Your task to perform on an android device: turn off picture-in-picture Image 0: 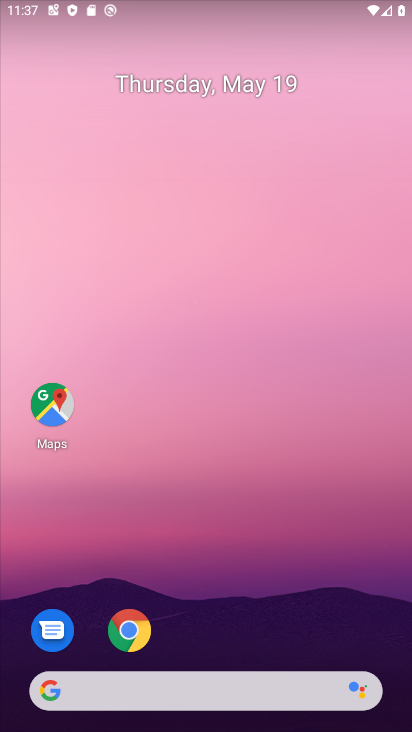
Step 0: click (130, 629)
Your task to perform on an android device: turn off picture-in-picture Image 1: 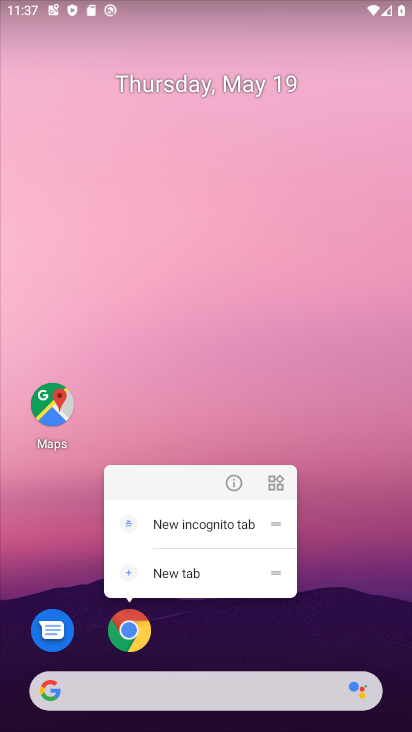
Step 1: click (232, 478)
Your task to perform on an android device: turn off picture-in-picture Image 2: 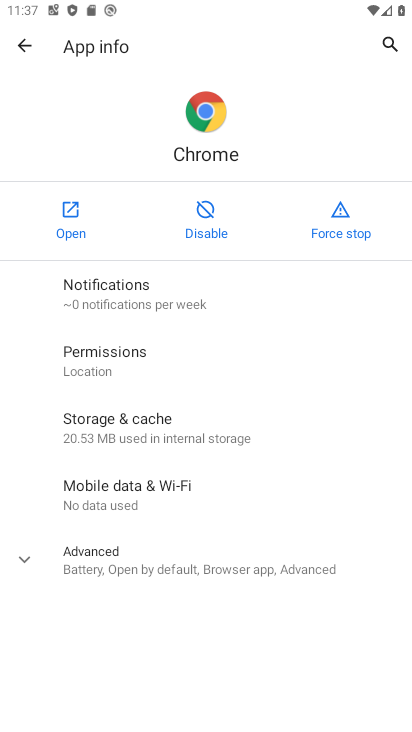
Step 2: click (152, 565)
Your task to perform on an android device: turn off picture-in-picture Image 3: 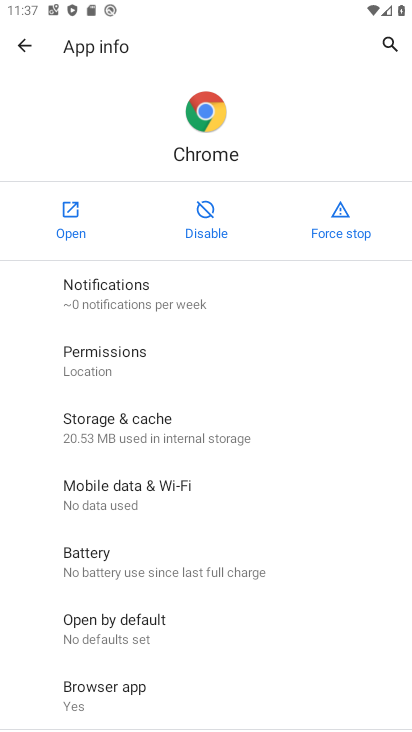
Step 3: drag from (214, 619) to (217, 386)
Your task to perform on an android device: turn off picture-in-picture Image 4: 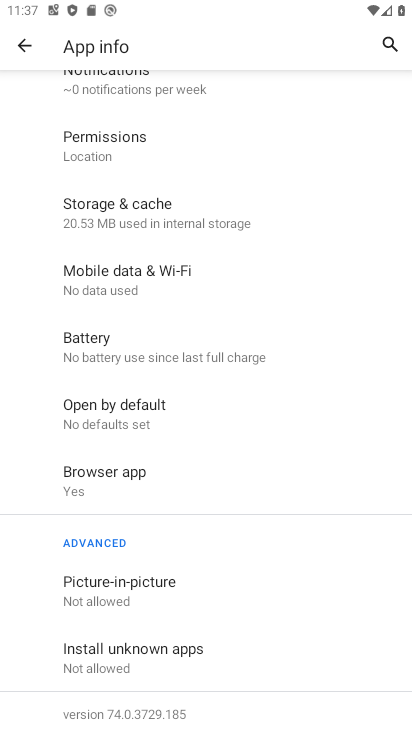
Step 4: click (124, 587)
Your task to perform on an android device: turn off picture-in-picture Image 5: 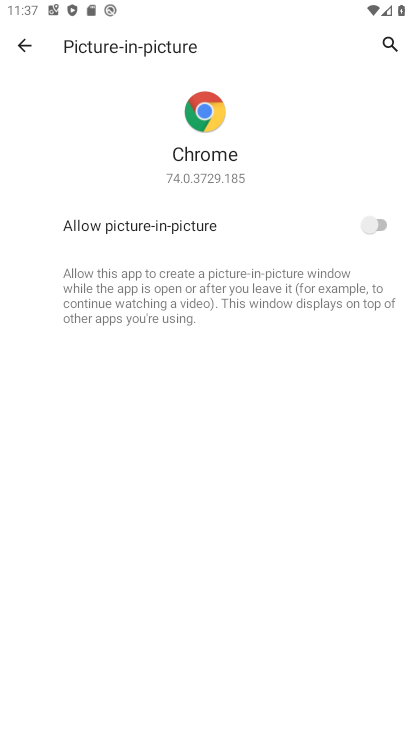
Step 5: task complete